Your task to perform on an android device: Open settings Image 0: 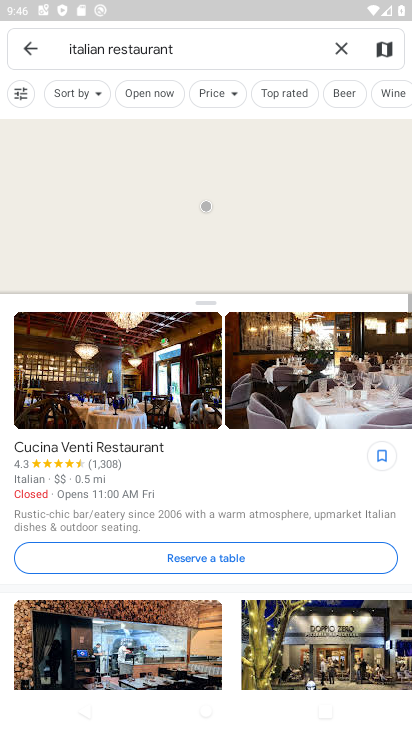
Step 0: press home button
Your task to perform on an android device: Open settings Image 1: 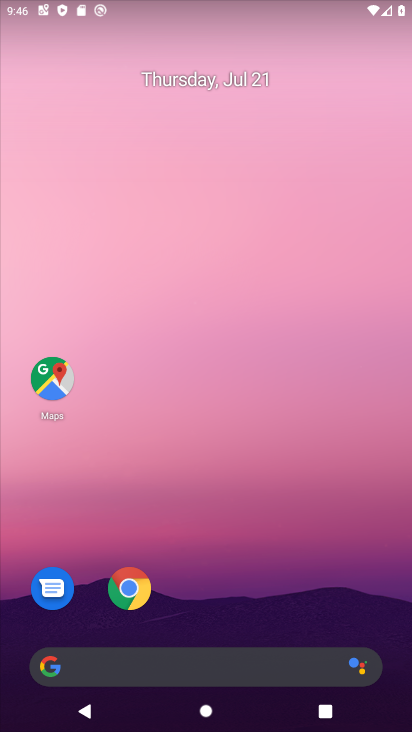
Step 1: drag from (401, 685) to (307, 156)
Your task to perform on an android device: Open settings Image 2: 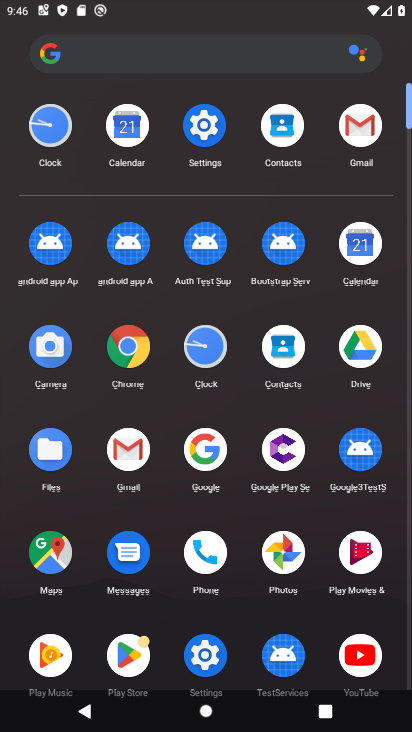
Step 2: click (208, 137)
Your task to perform on an android device: Open settings Image 3: 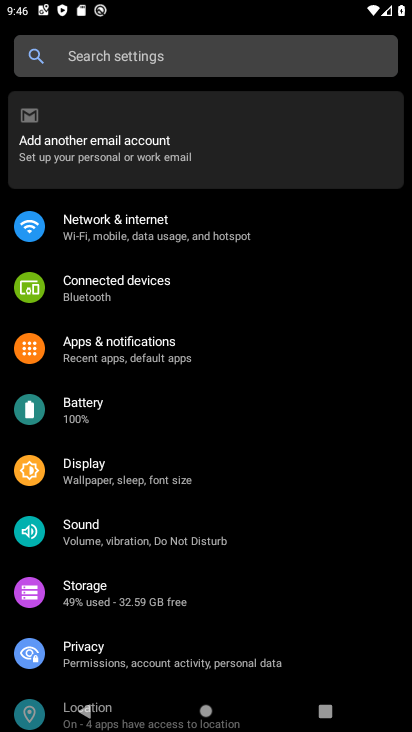
Step 3: task complete